Your task to perform on an android device: read, delete, or share a saved page in the chrome app Image 0: 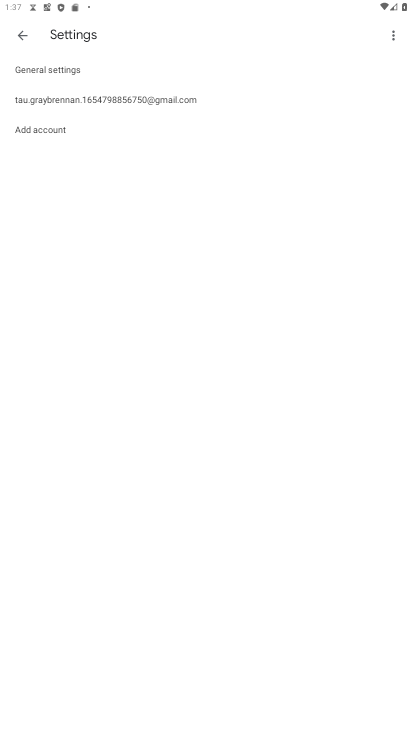
Step 0: press home button
Your task to perform on an android device: read, delete, or share a saved page in the chrome app Image 1: 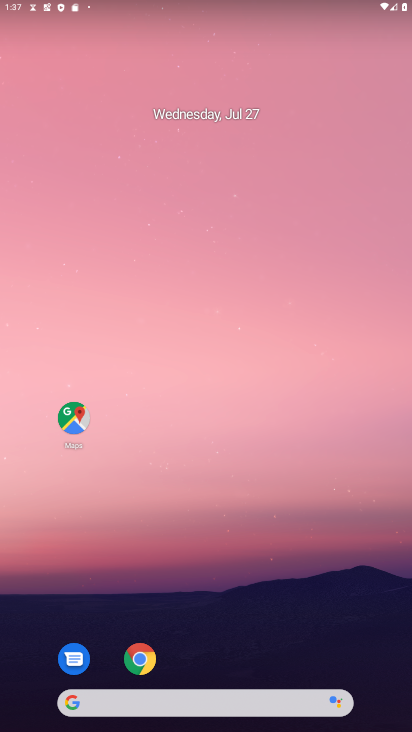
Step 1: drag from (201, 667) to (217, 130)
Your task to perform on an android device: read, delete, or share a saved page in the chrome app Image 2: 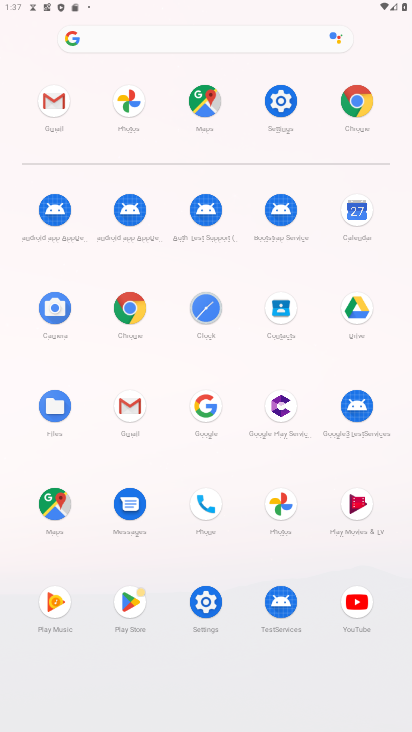
Step 2: click (358, 101)
Your task to perform on an android device: read, delete, or share a saved page in the chrome app Image 3: 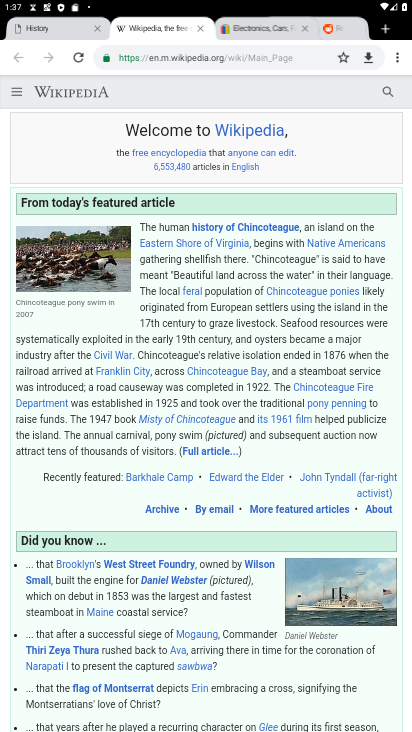
Step 3: click (401, 56)
Your task to perform on an android device: read, delete, or share a saved page in the chrome app Image 4: 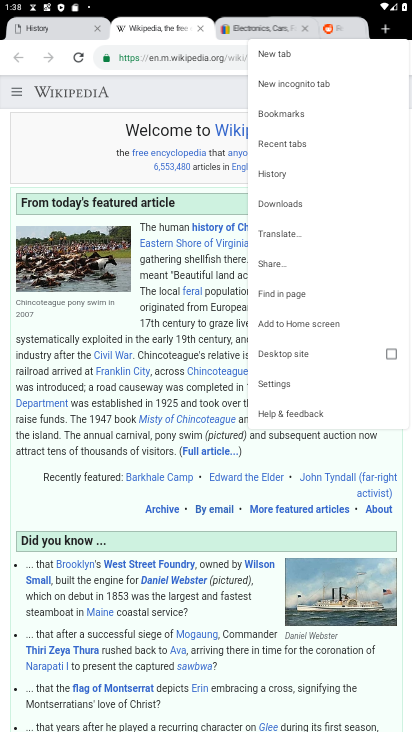
Step 4: click (295, 201)
Your task to perform on an android device: read, delete, or share a saved page in the chrome app Image 5: 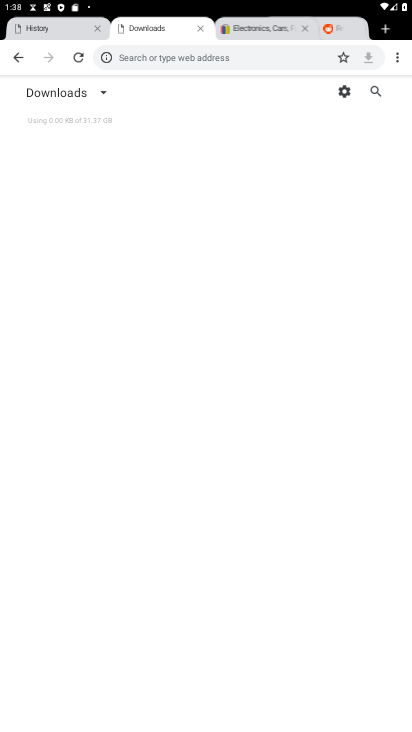
Step 5: task complete